Your task to perform on an android device: Go to location settings Image 0: 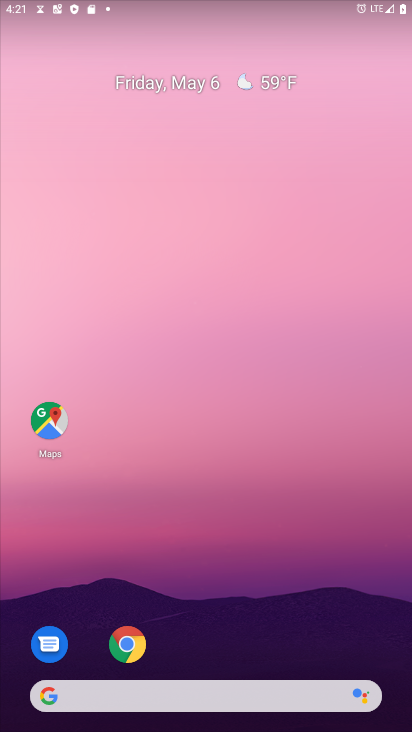
Step 0: drag from (237, 594) to (238, 68)
Your task to perform on an android device: Go to location settings Image 1: 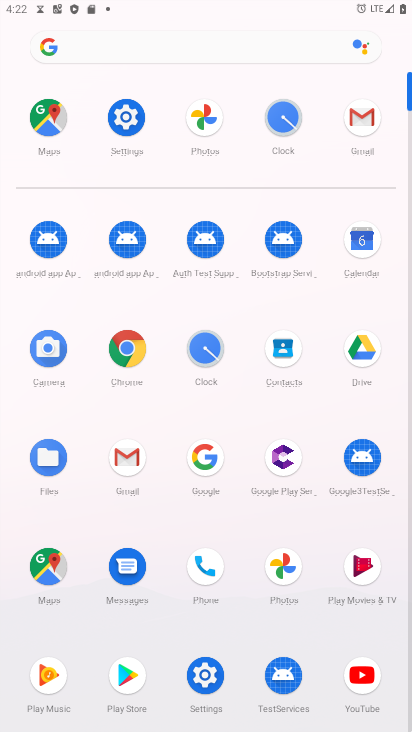
Step 1: click (125, 115)
Your task to perform on an android device: Go to location settings Image 2: 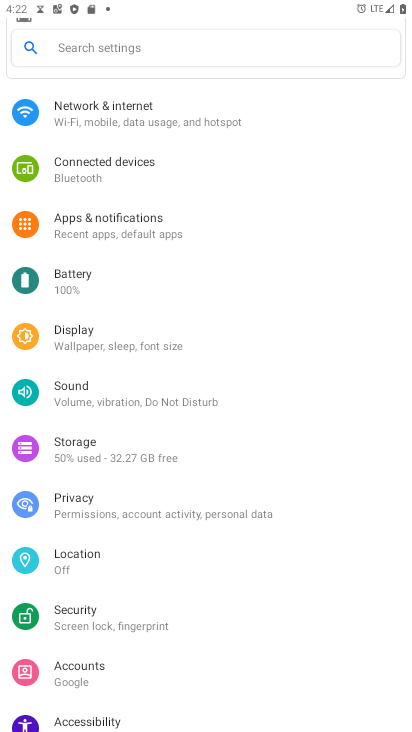
Step 2: click (81, 551)
Your task to perform on an android device: Go to location settings Image 3: 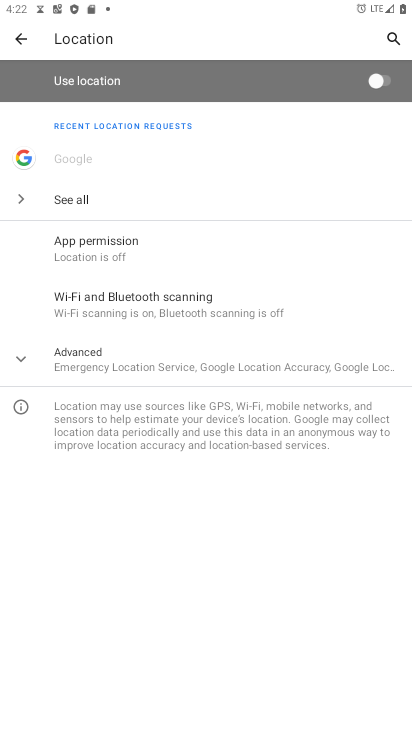
Step 3: task complete